Your task to perform on an android device: see tabs open on other devices in the chrome app Image 0: 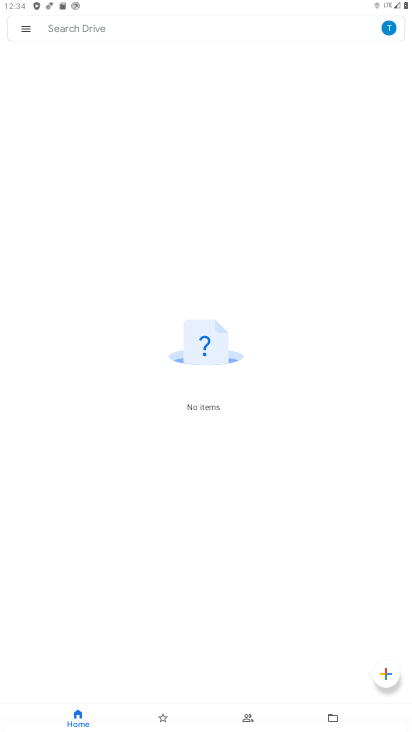
Step 0: press home button
Your task to perform on an android device: see tabs open on other devices in the chrome app Image 1: 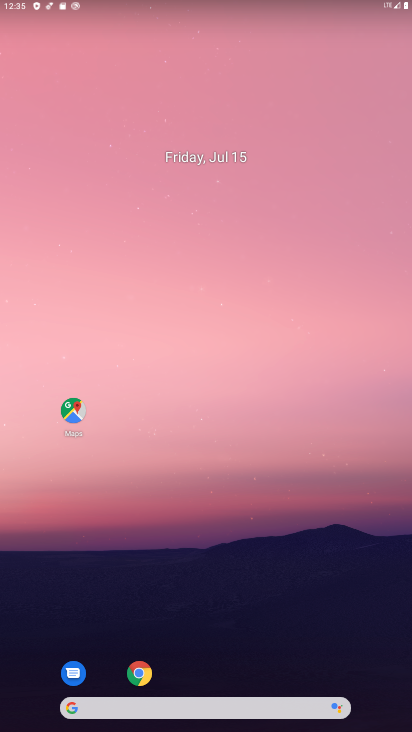
Step 1: click (144, 671)
Your task to perform on an android device: see tabs open on other devices in the chrome app Image 2: 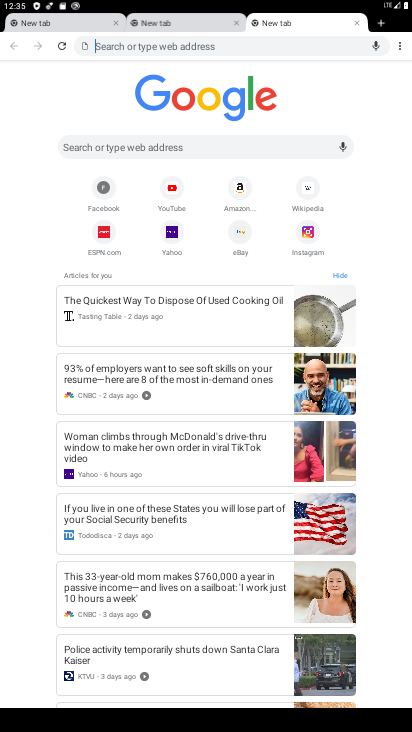
Step 2: click (400, 46)
Your task to perform on an android device: see tabs open on other devices in the chrome app Image 3: 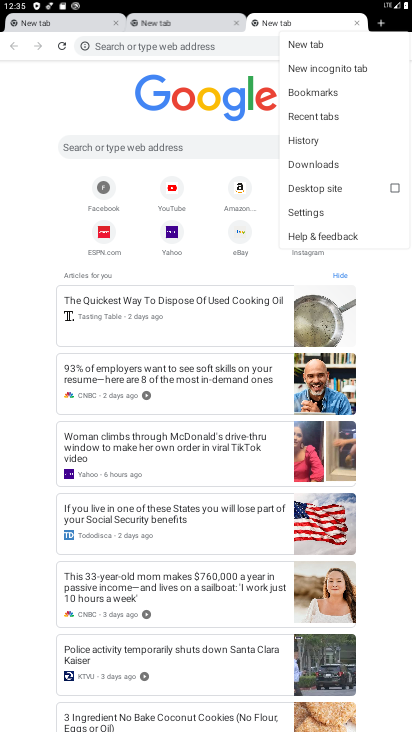
Step 3: click (317, 117)
Your task to perform on an android device: see tabs open on other devices in the chrome app Image 4: 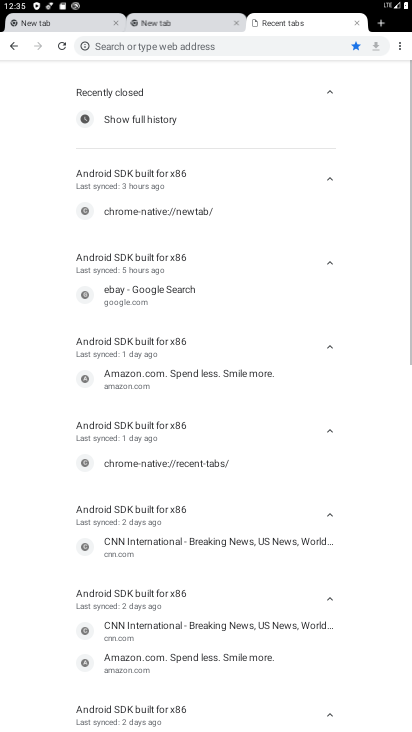
Step 4: task complete